Your task to perform on an android device: toggle wifi Image 0: 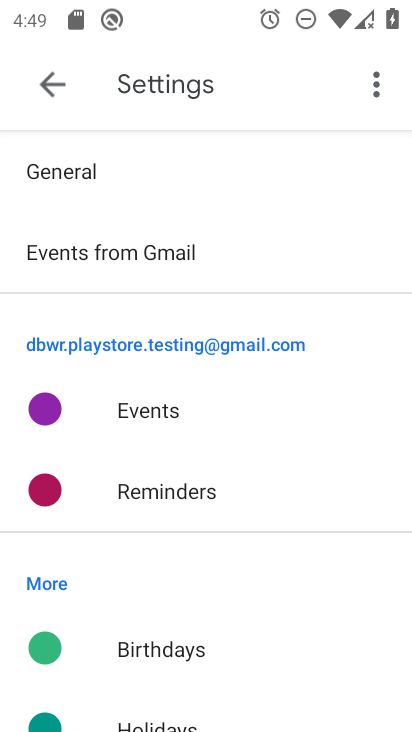
Step 0: drag from (165, 15) to (188, 672)
Your task to perform on an android device: toggle wifi Image 1: 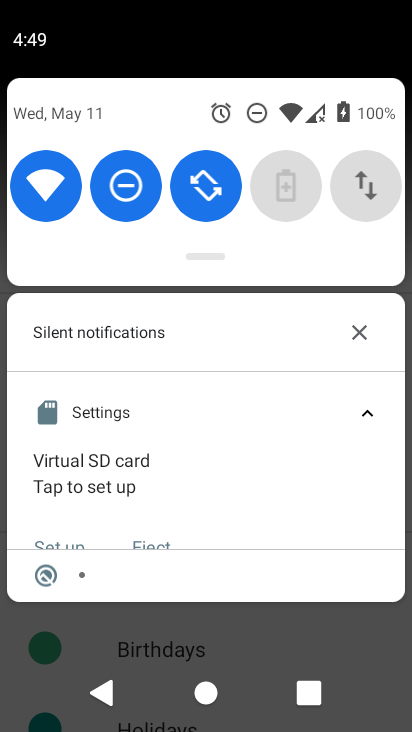
Step 1: click (29, 183)
Your task to perform on an android device: toggle wifi Image 2: 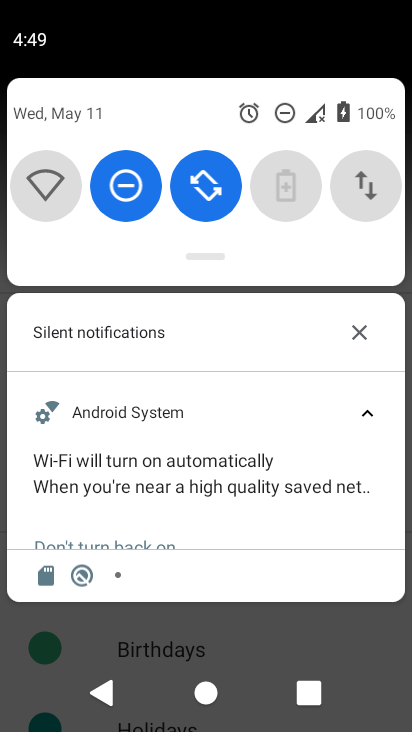
Step 2: task complete